Your task to perform on an android device: check data usage Image 0: 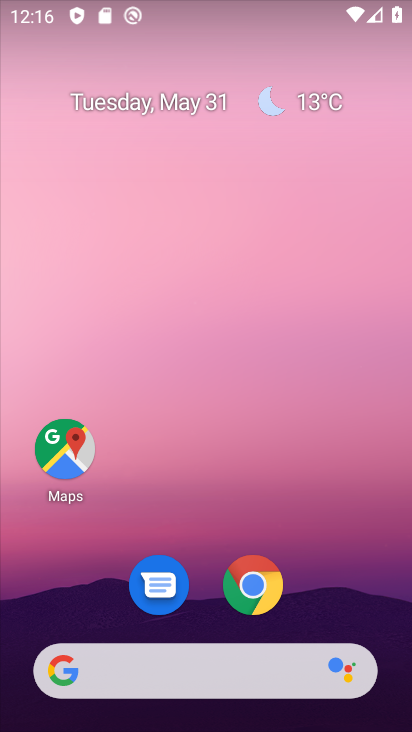
Step 0: drag from (198, 537) to (225, 23)
Your task to perform on an android device: check data usage Image 1: 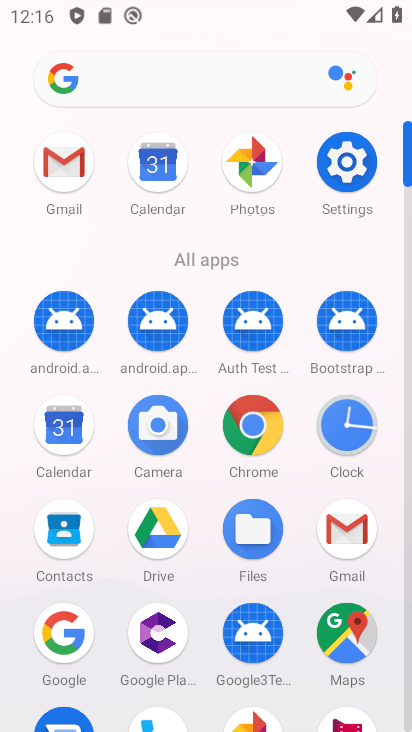
Step 1: click (358, 165)
Your task to perform on an android device: check data usage Image 2: 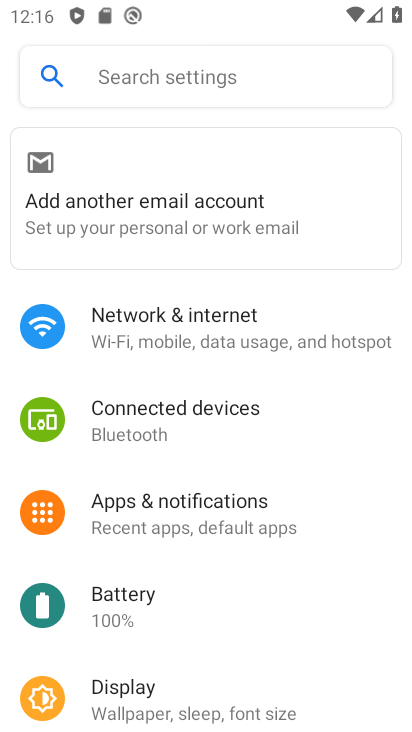
Step 2: click (248, 338)
Your task to perform on an android device: check data usage Image 3: 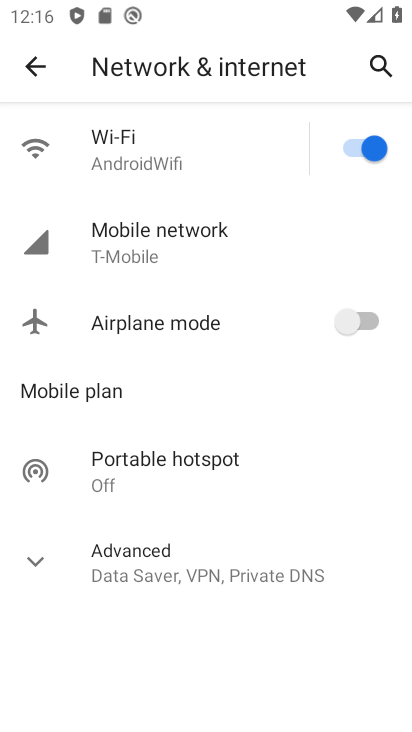
Step 3: click (205, 229)
Your task to perform on an android device: check data usage Image 4: 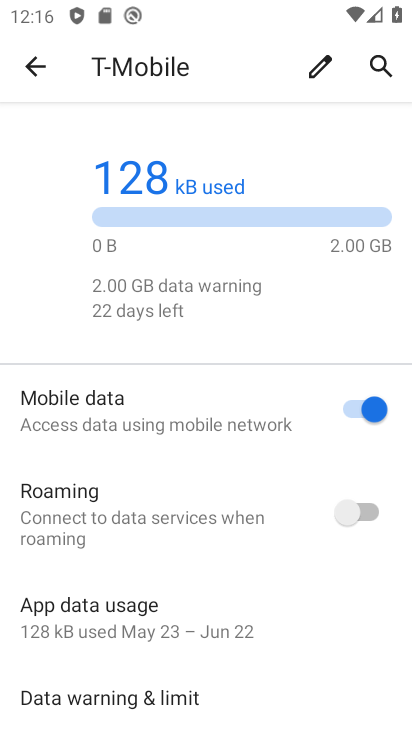
Step 4: task complete